Your task to perform on an android device: Open the phone app and click the voicemail tab. Image 0: 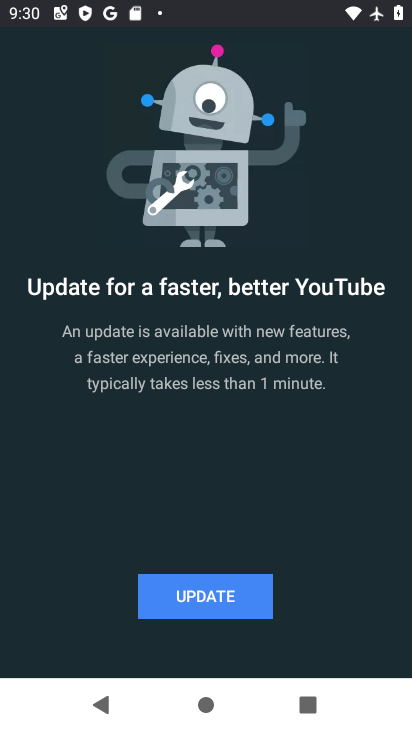
Step 0: press home button
Your task to perform on an android device: Open the phone app and click the voicemail tab. Image 1: 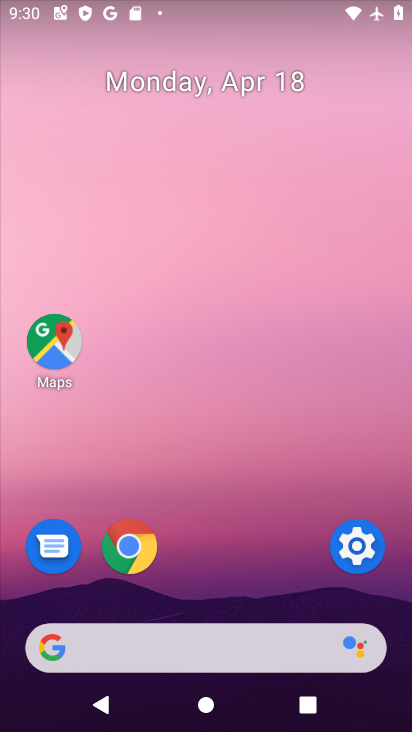
Step 1: drag from (239, 561) to (229, 173)
Your task to perform on an android device: Open the phone app and click the voicemail tab. Image 2: 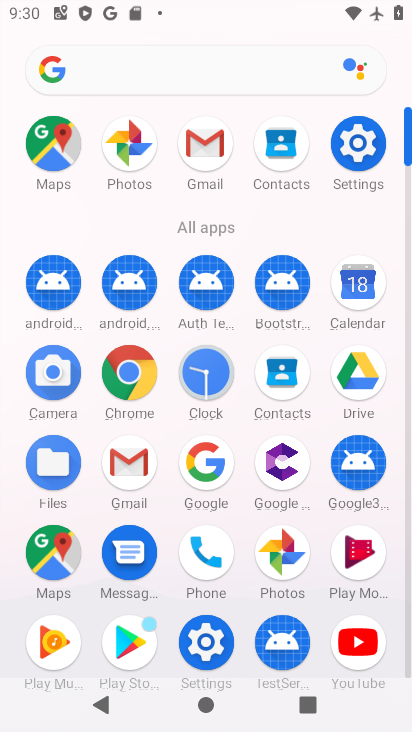
Step 2: drag from (312, 603) to (289, 229)
Your task to perform on an android device: Open the phone app and click the voicemail tab. Image 3: 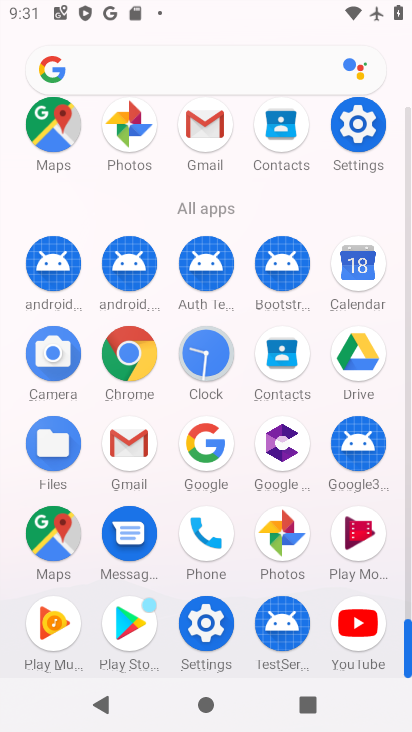
Step 3: click (187, 548)
Your task to perform on an android device: Open the phone app and click the voicemail tab. Image 4: 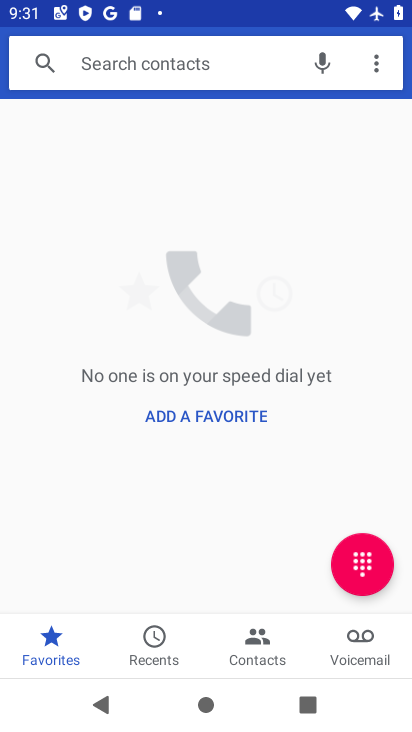
Step 4: click (365, 648)
Your task to perform on an android device: Open the phone app and click the voicemail tab. Image 5: 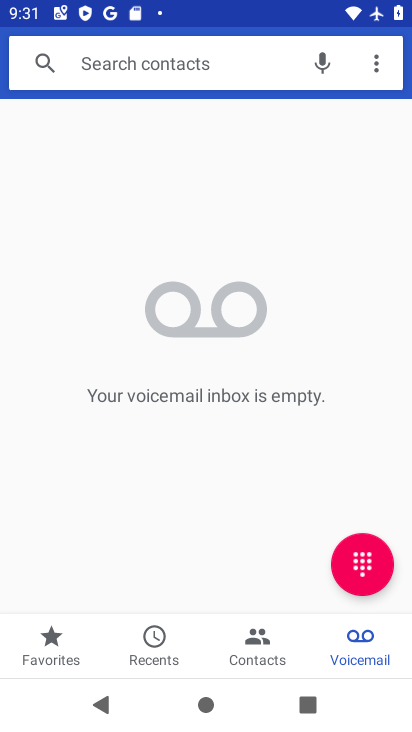
Step 5: task complete